Your task to perform on an android device: Open the map Image 0: 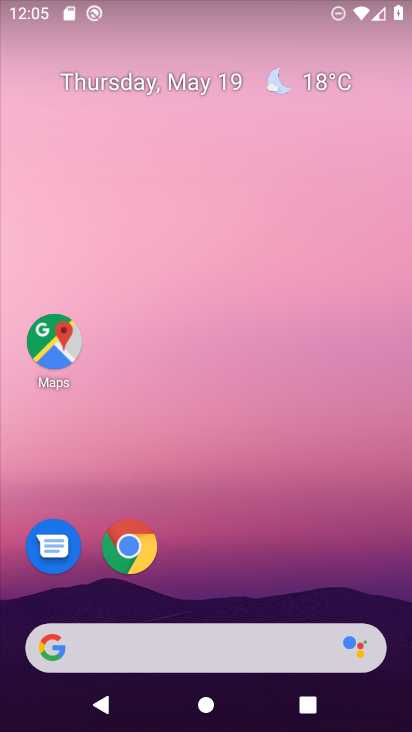
Step 0: drag from (223, 720) to (233, 84)
Your task to perform on an android device: Open the map Image 1: 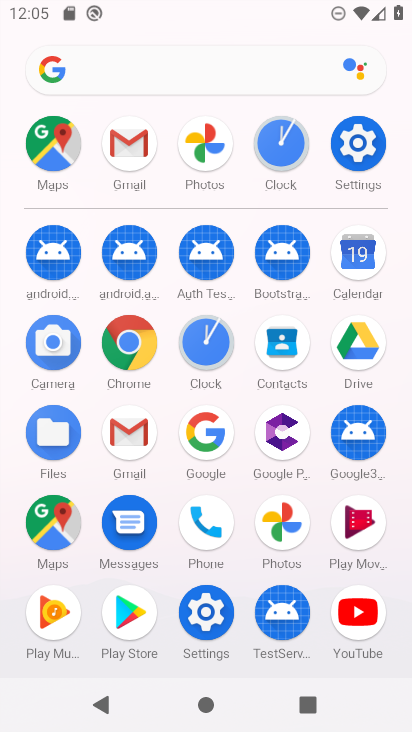
Step 1: click (48, 138)
Your task to perform on an android device: Open the map Image 2: 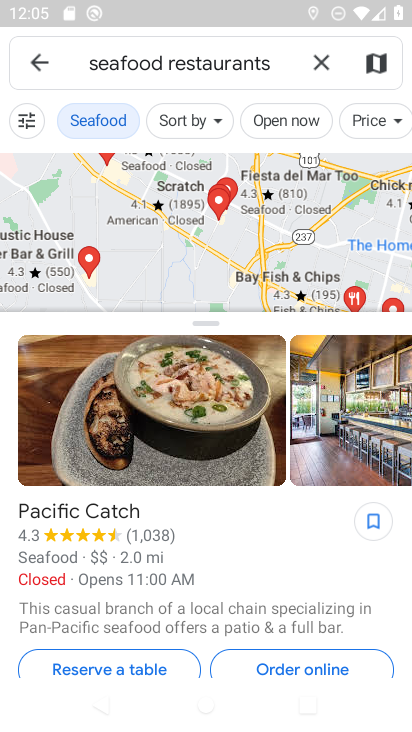
Step 2: task complete